Your task to perform on an android device: What is the news today? Image 0: 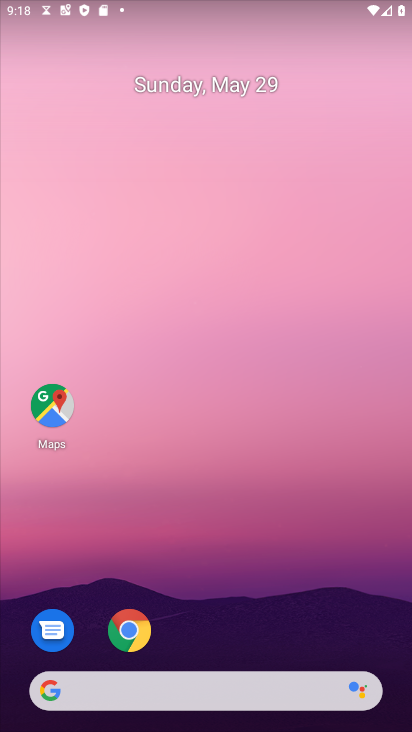
Step 0: click (237, 689)
Your task to perform on an android device: What is the news today? Image 1: 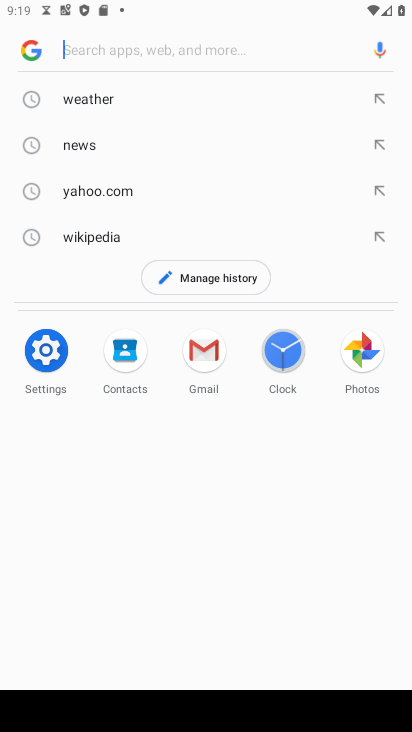
Step 1: type "news today"
Your task to perform on an android device: What is the news today? Image 2: 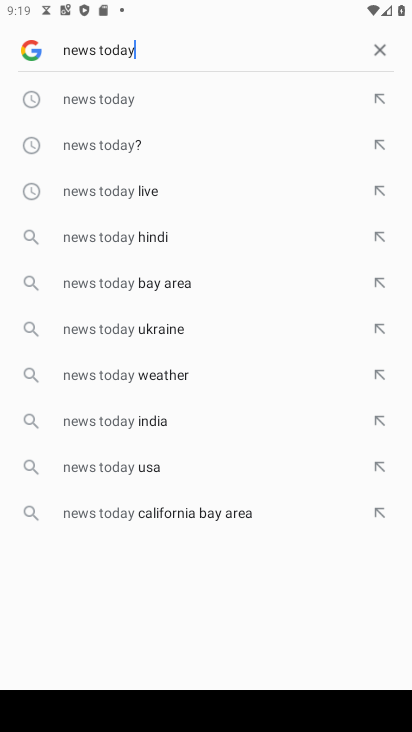
Step 2: click (111, 151)
Your task to perform on an android device: What is the news today? Image 3: 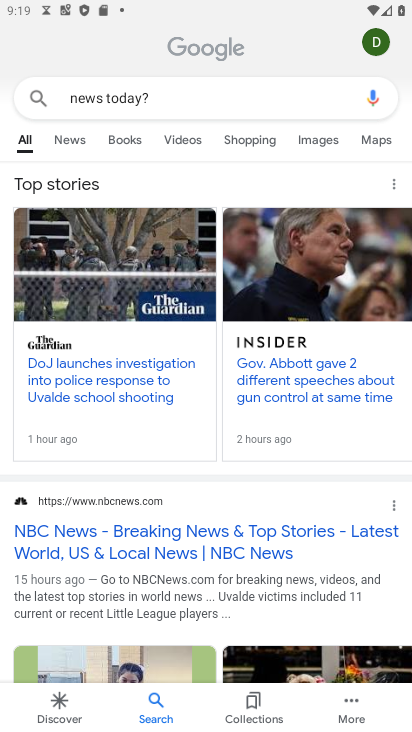
Step 3: click (66, 140)
Your task to perform on an android device: What is the news today? Image 4: 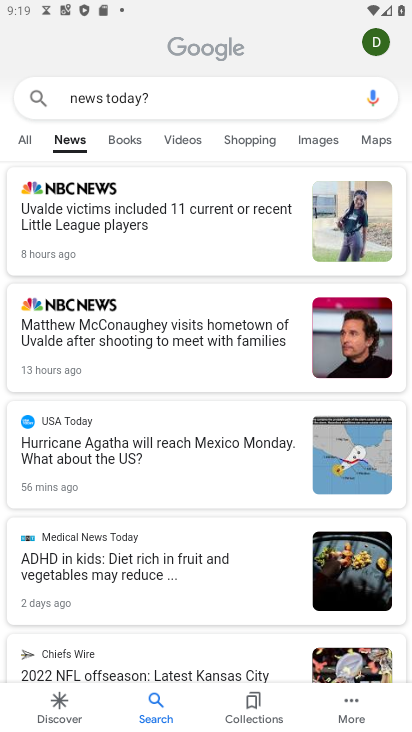
Step 4: task complete